Your task to perform on an android device: move an email to a new category in the gmail app Image 0: 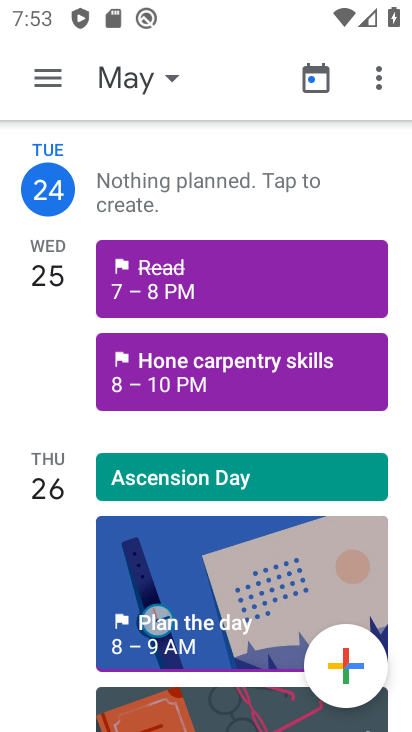
Step 0: press home button
Your task to perform on an android device: move an email to a new category in the gmail app Image 1: 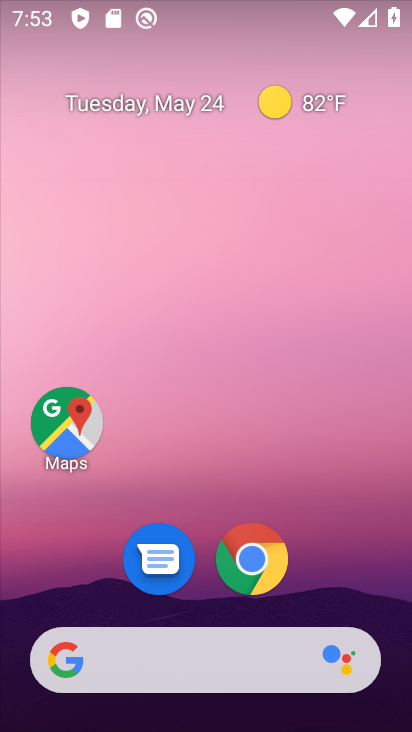
Step 1: drag from (385, 597) to (394, 304)
Your task to perform on an android device: move an email to a new category in the gmail app Image 2: 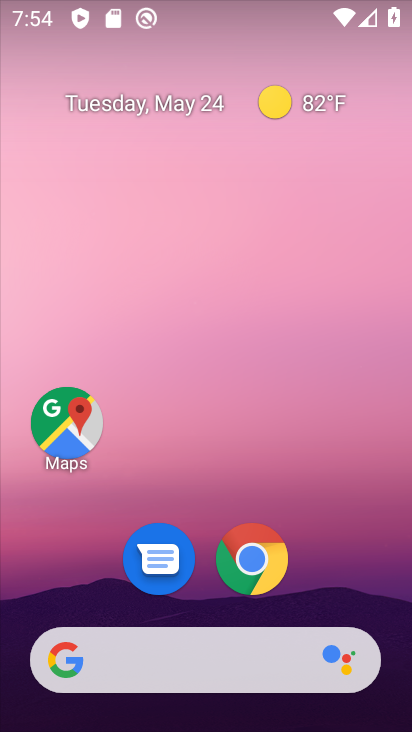
Step 2: drag from (362, 565) to (378, 121)
Your task to perform on an android device: move an email to a new category in the gmail app Image 3: 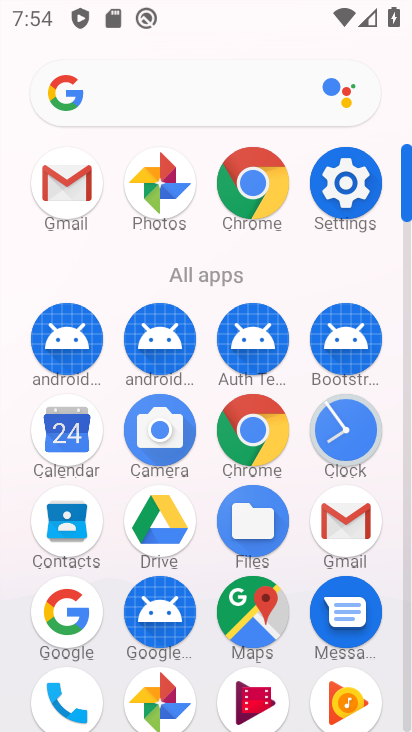
Step 3: drag from (389, 639) to (389, 400)
Your task to perform on an android device: move an email to a new category in the gmail app Image 4: 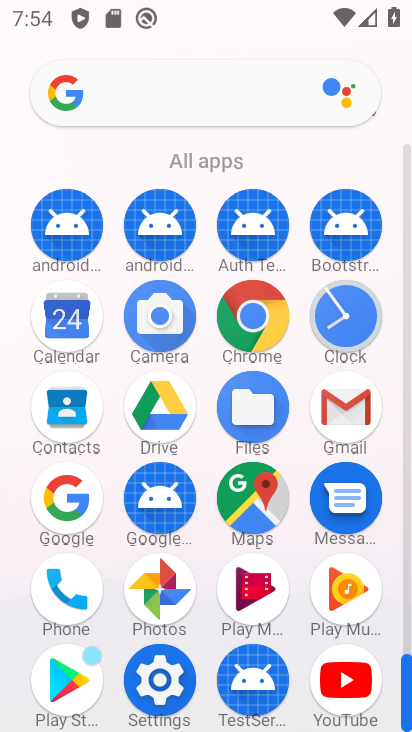
Step 4: click (353, 421)
Your task to perform on an android device: move an email to a new category in the gmail app Image 5: 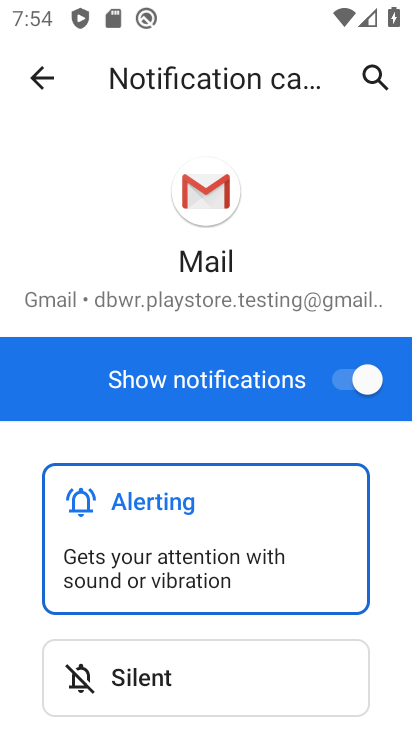
Step 5: click (39, 73)
Your task to perform on an android device: move an email to a new category in the gmail app Image 6: 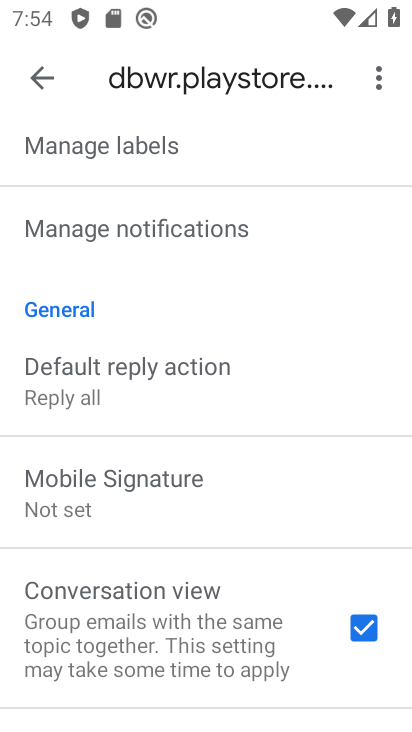
Step 6: click (39, 73)
Your task to perform on an android device: move an email to a new category in the gmail app Image 7: 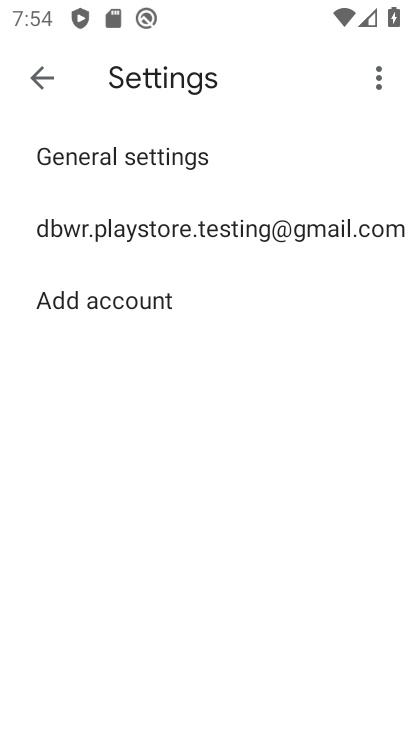
Step 7: click (39, 73)
Your task to perform on an android device: move an email to a new category in the gmail app Image 8: 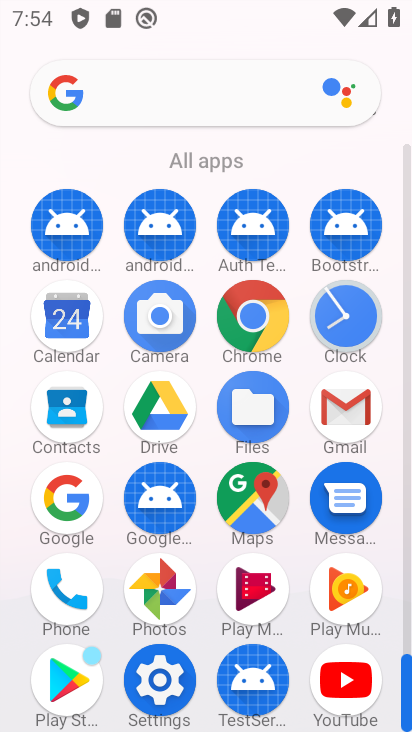
Step 8: click (357, 413)
Your task to perform on an android device: move an email to a new category in the gmail app Image 9: 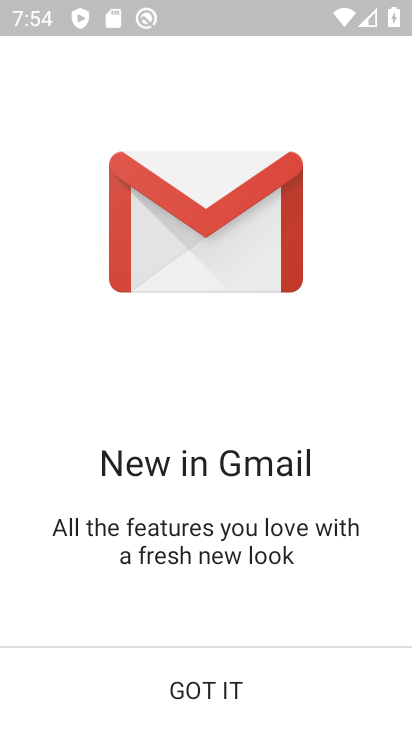
Step 9: click (297, 692)
Your task to perform on an android device: move an email to a new category in the gmail app Image 10: 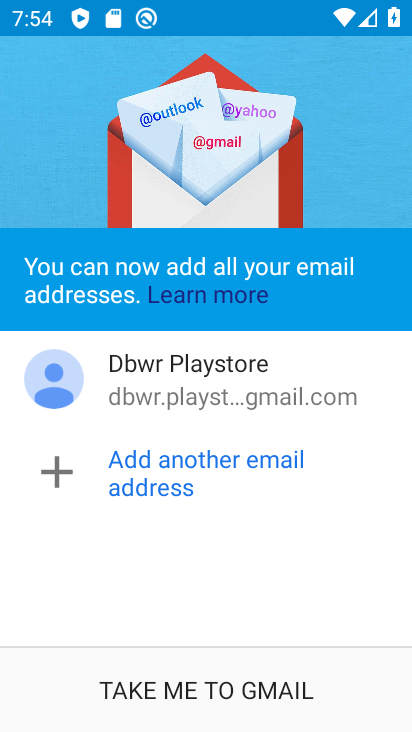
Step 10: click (297, 692)
Your task to perform on an android device: move an email to a new category in the gmail app Image 11: 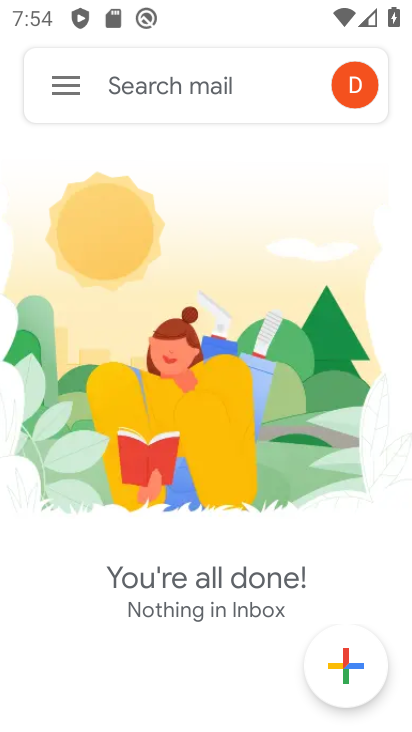
Step 11: task complete